Your task to perform on an android device: turn off improve location accuracy Image 0: 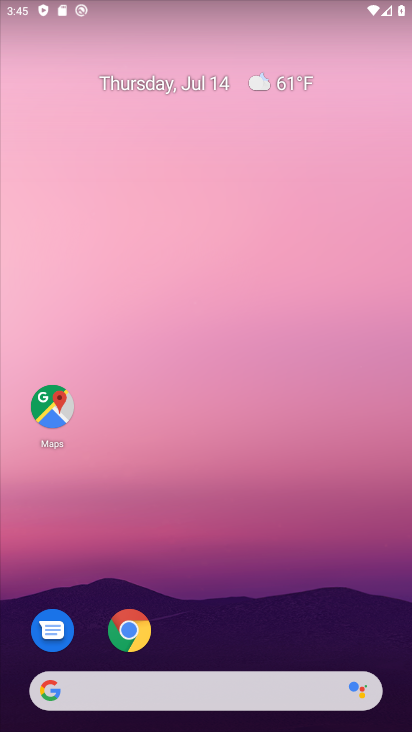
Step 0: drag from (246, 640) to (138, 86)
Your task to perform on an android device: turn off improve location accuracy Image 1: 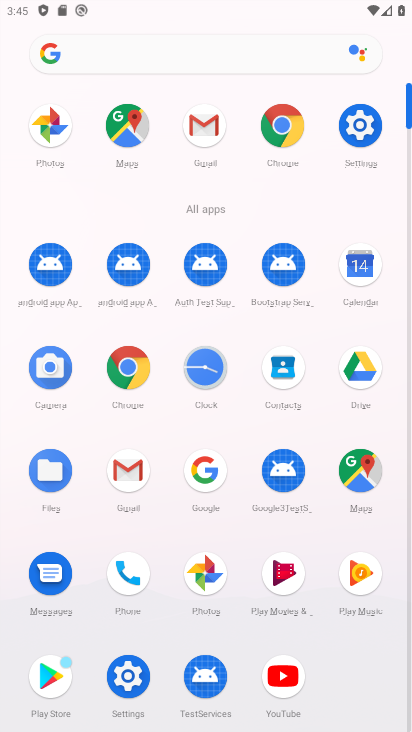
Step 1: click (363, 127)
Your task to perform on an android device: turn off improve location accuracy Image 2: 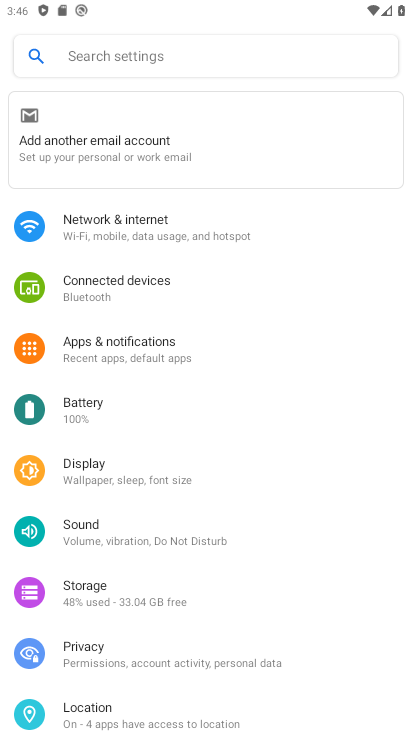
Step 2: click (166, 716)
Your task to perform on an android device: turn off improve location accuracy Image 3: 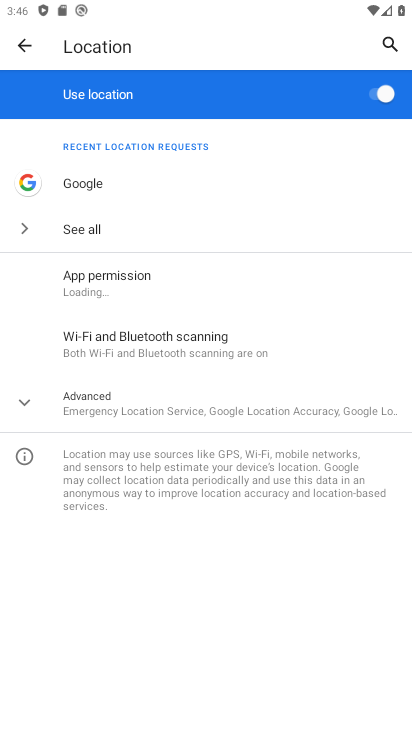
Step 3: click (224, 409)
Your task to perform on an android device: turn off improve location accuracy Image 4: 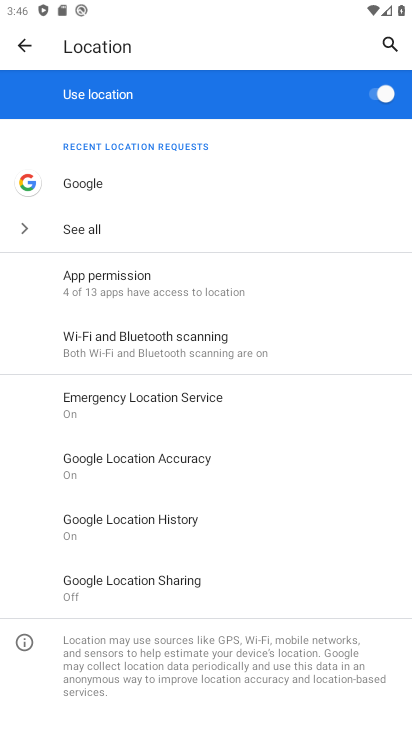
Step 4: click (221, 460)
Your task to perform on an android device: turn off improve location accuracy Image 5: 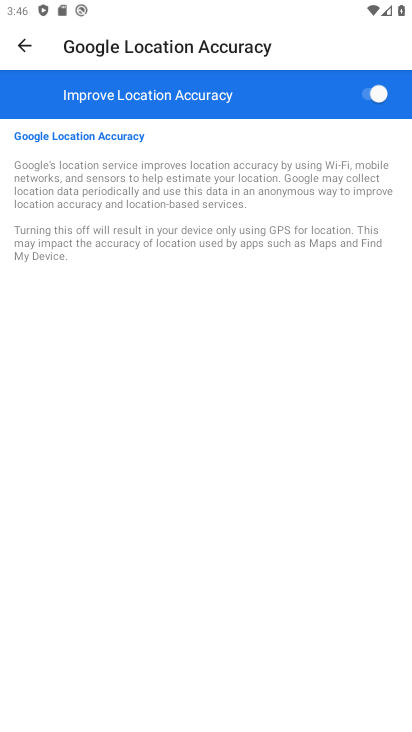
Step 5: click (378, 101)
Your task to perform on an android device: turn off improve location accuracy Image 6: 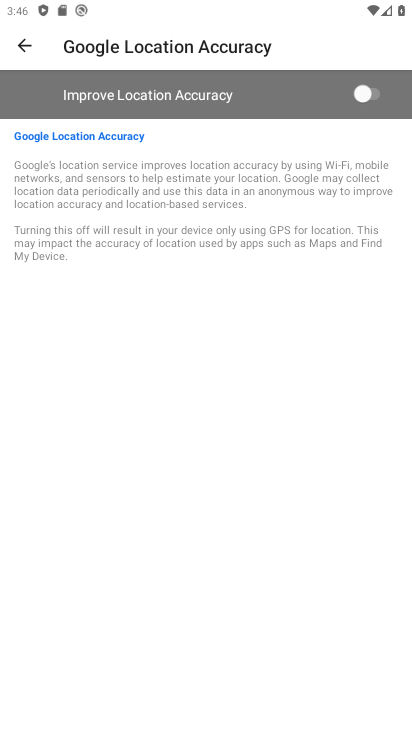
Step 6: task complete